Your task to perform on an android device: Set the phone to "Do not disturb". Image 0: 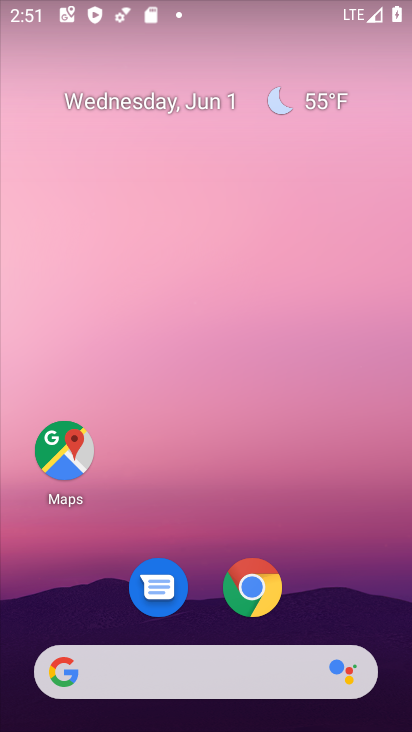
Step 0: drag from (183, 662) to (192, 198)
Your task to perform on an android device: Set the phone to "Do not disturb". Image 1: 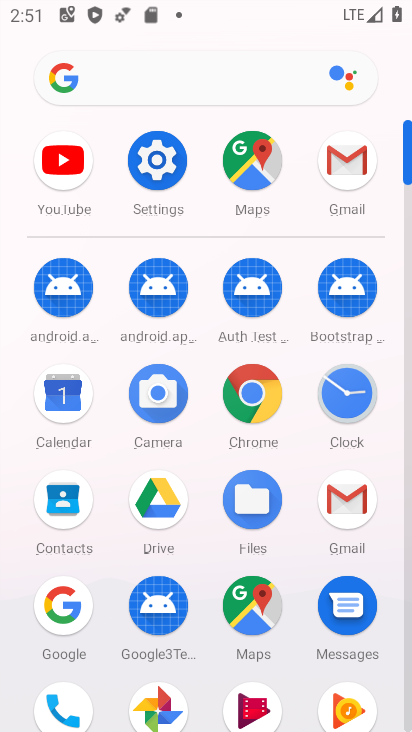
Step 1: click (159, 171)
Your task to perform on an android device: Set the phone to "Do not disturb". Image 2: 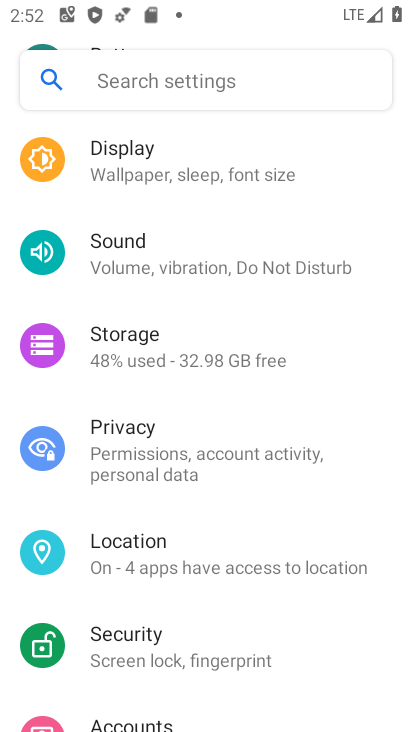
Step 2: click (167, 260)
Your task to perform on an android device: Set the phone to "Do not disturb". Image 3: 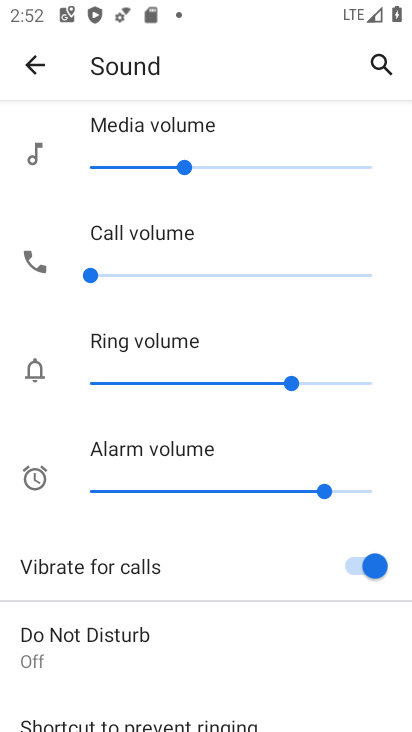
Step 3: click (131, 638)
Your task to perform on an android device: Set the phone to "Do not disturb". Image 4: 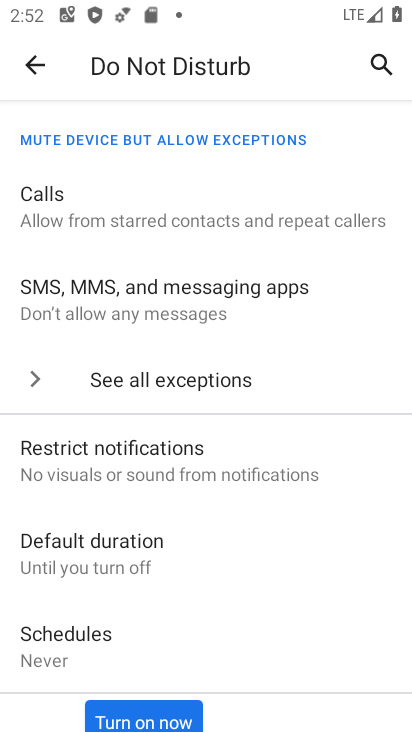
Step 4: click (162, 699)
Your task to perform on an android device: Set the phone to "Do not disturb". Image 5: 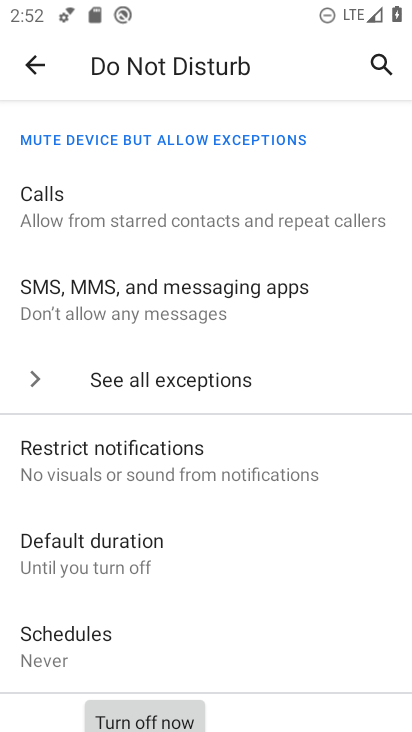
Step 5: task complete